Your task to perform on an android device: Go to settings Image 0: 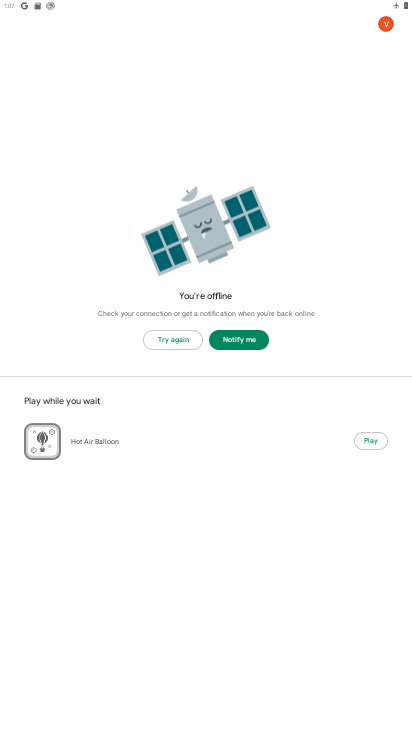
Step 0: press home button
Your task to perform on an android device: Go to settings Image 1: 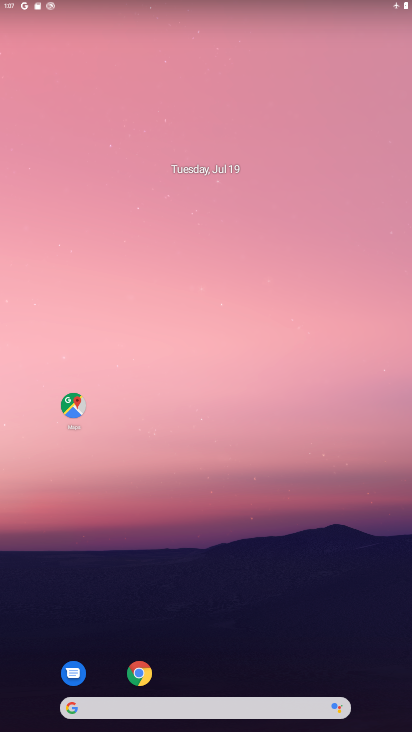
Step 1: drag from (221, 723) to (378, 2)
Your task to perform on an android device: Go to settings Image 2: 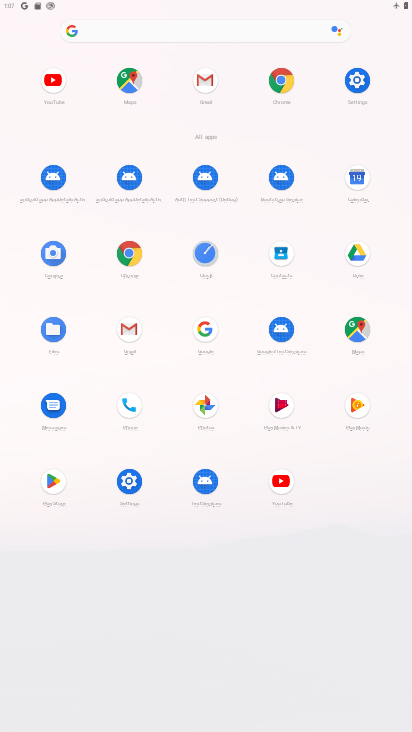
Step 2: click (364, 71)
Your task to perform on an android device: Go to settings Image 3: 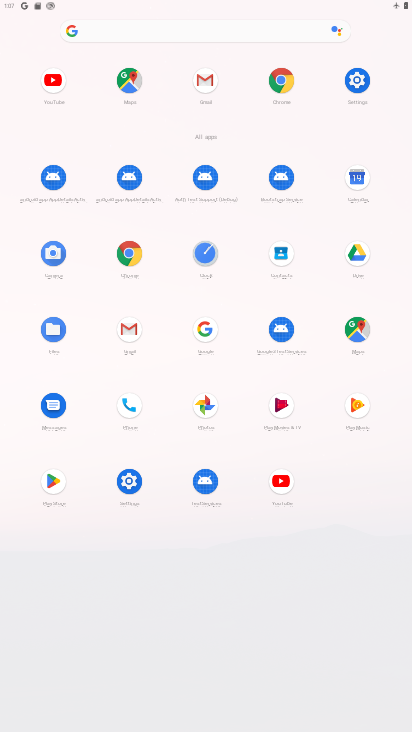
Step 3: click (364, 71)
Your task to perform on an android device: Go to settings Image 4: 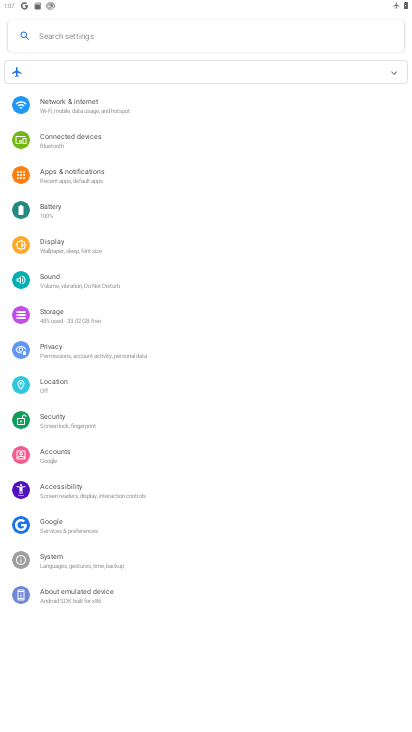
Step 4: task complete